Your task to perform on an android device: turn off location history Image 0: 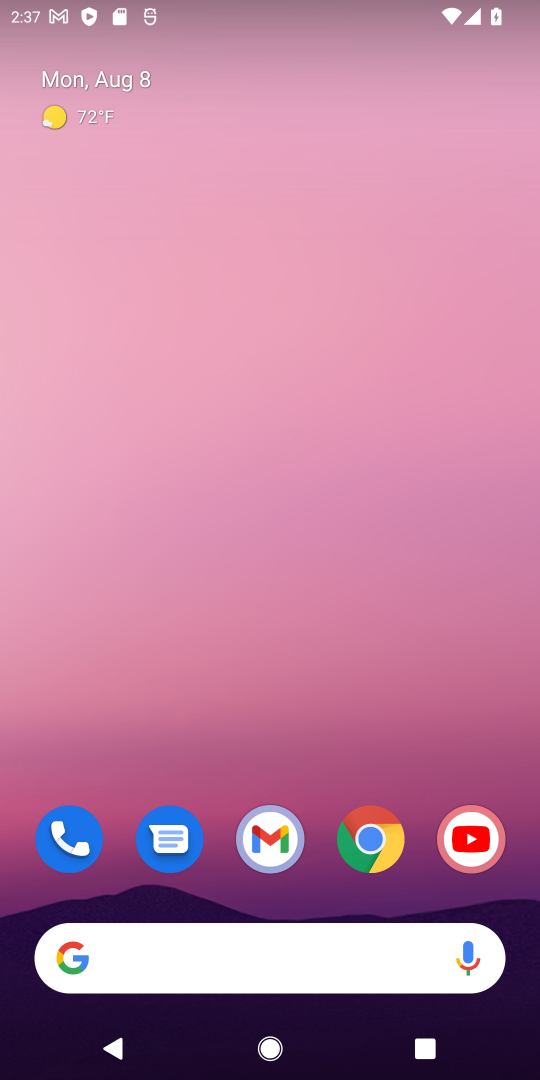
Step 0: press home button
Your task to perform on an android device: turn off location history Image 1: 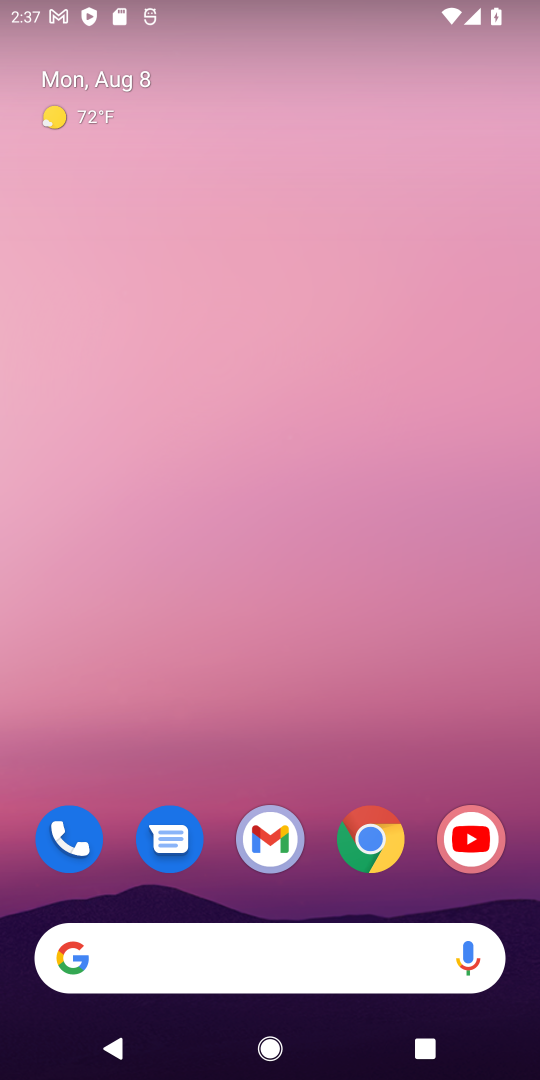
Step 1: drag from (441, 676) to (500, 202)
Your task to perform on an android device: turn off location history Image 2: 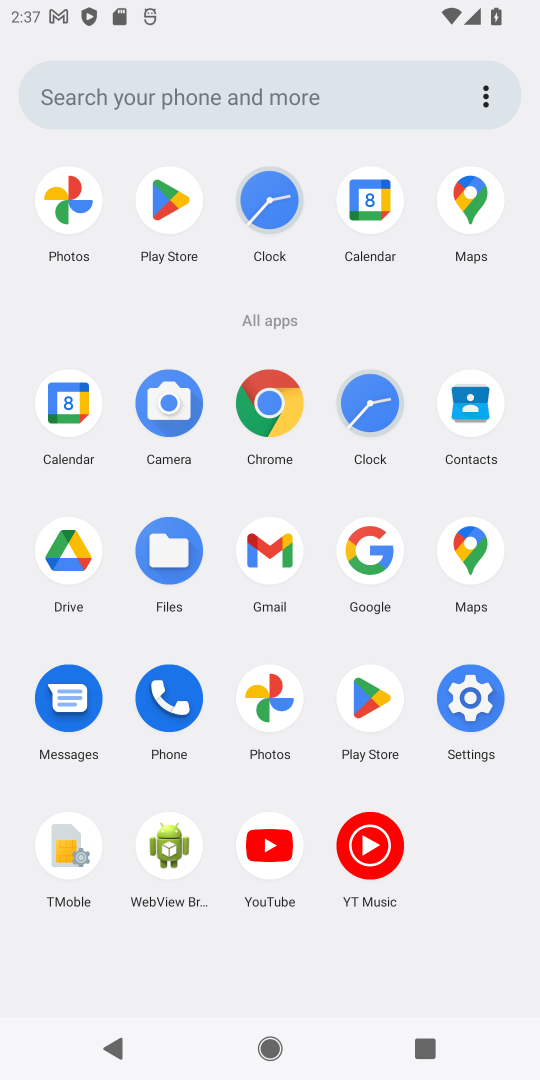
Step 2: click (466, 693)
Your task to perform on an android device: turn off location history Image 3: 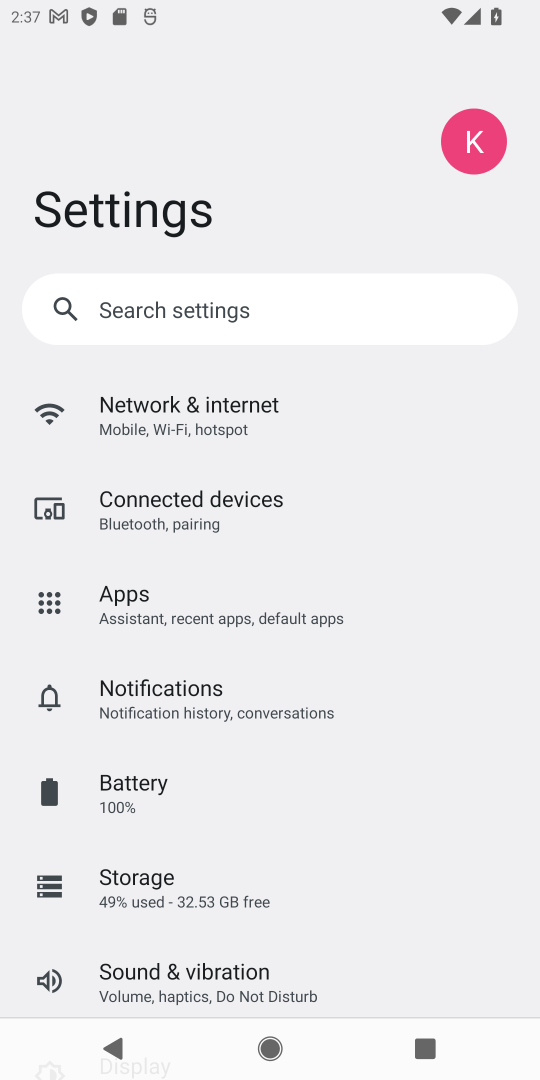
Step 3: drag from (458, 821) to (465, 696)
Your task to perform on an android device: turn off location history Image 4: 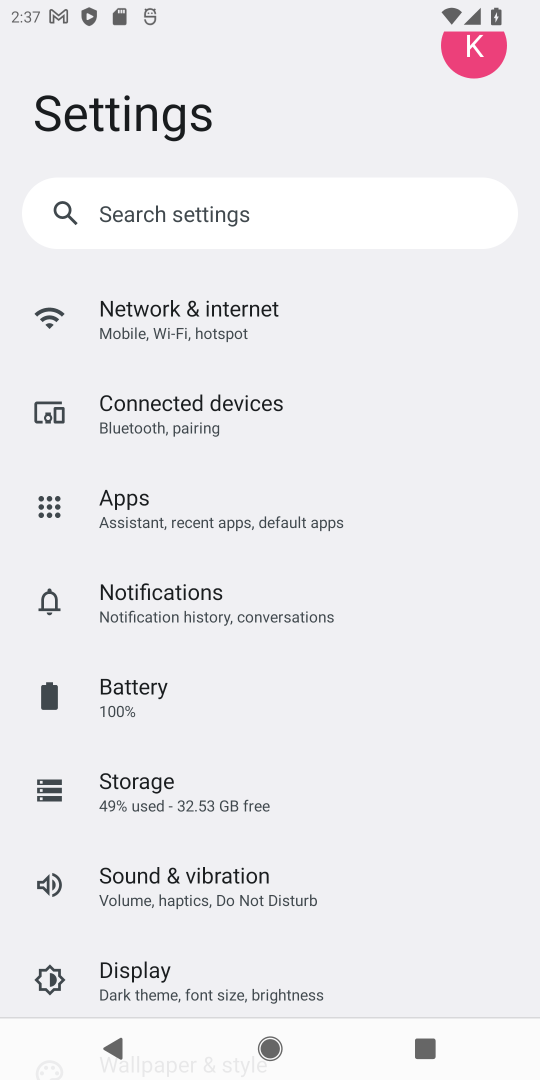
Step 4: drag from (455, 815) to (462, 535)
Your task to perform on an android device: turn off location history Image 5: 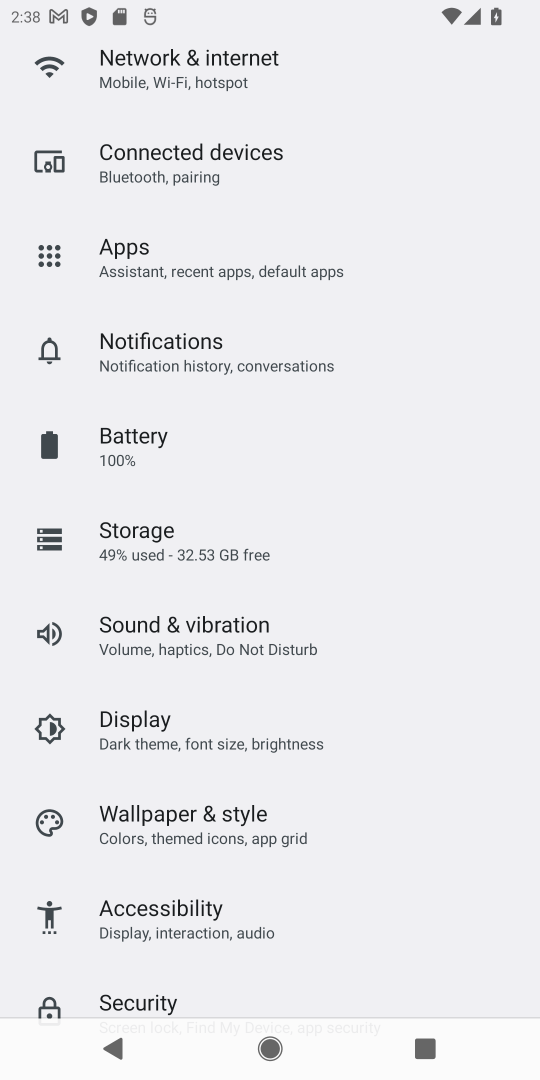
Step 5: drag from (427, 693) to (442, 511)
Your task to perform on an android device: turn off location history Image 6: 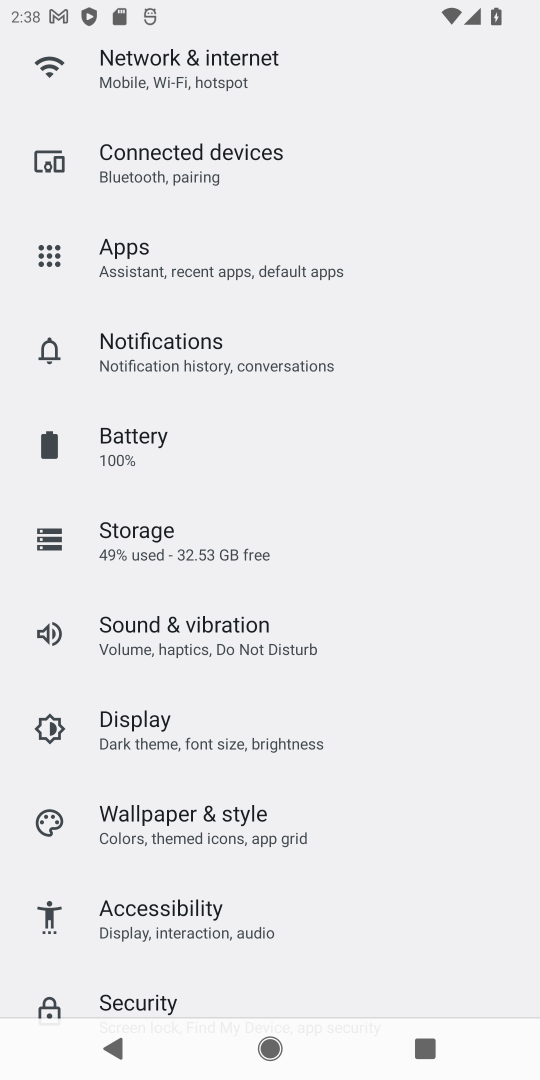
Step 6: drag from (417, 768) to (438, 426)
Your task to perform on an android device: turn off location history Image 7: 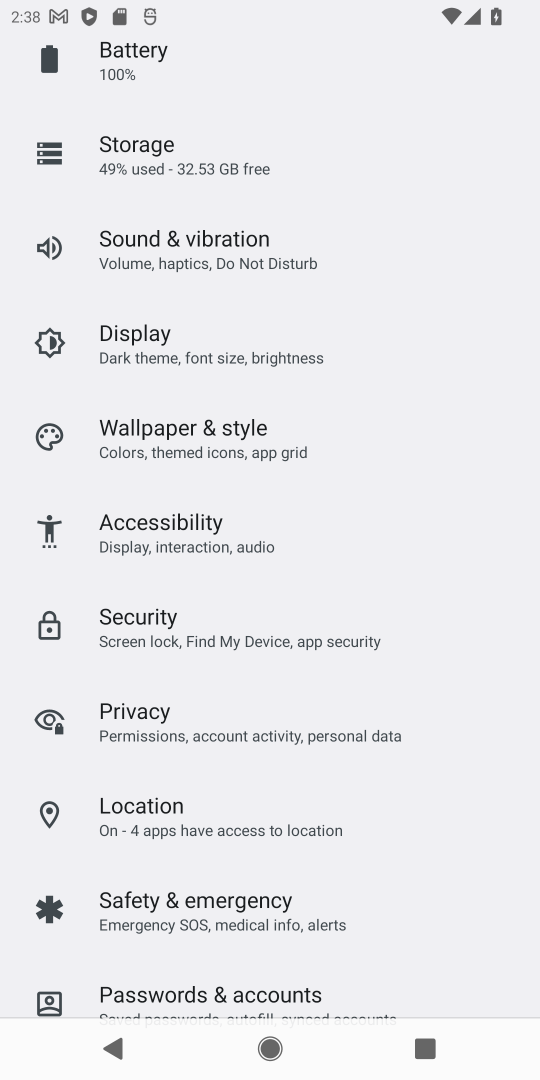
Step 7: drag from (452, 820) to (478, 517)
Your task to perform on an android device: turn off location history Image 8: 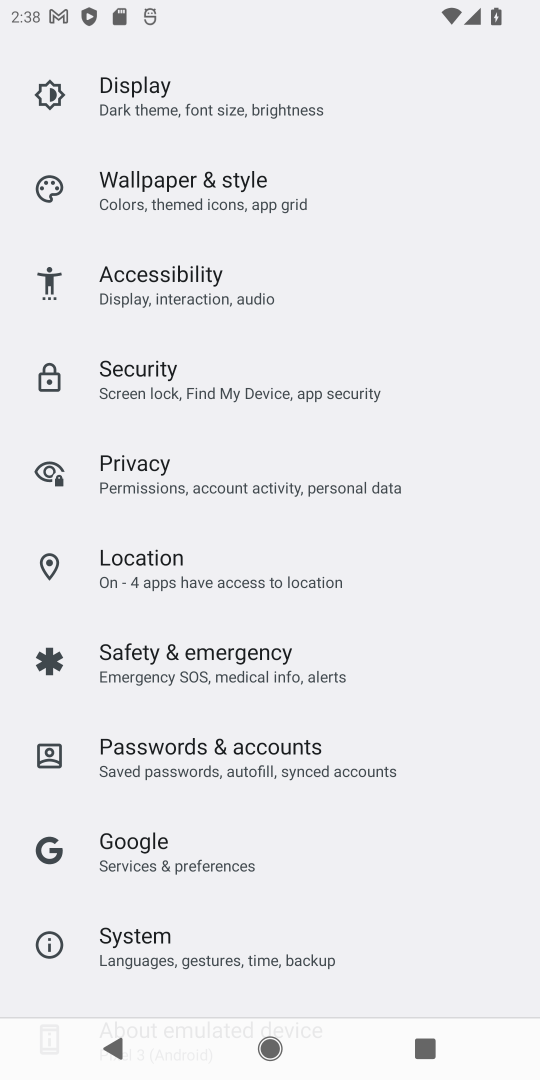
Step 8: click (354, 560)
Your task to perform on an android device: turn off location history Image 9: 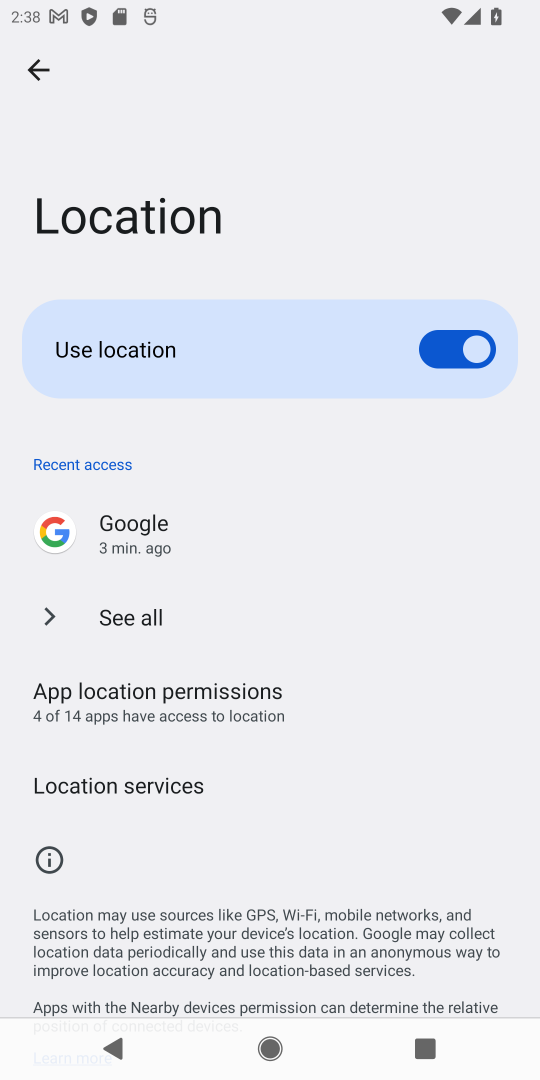
Step 9: click (470, 349)
Your task to perform on an android device: turn off location history Image 10: 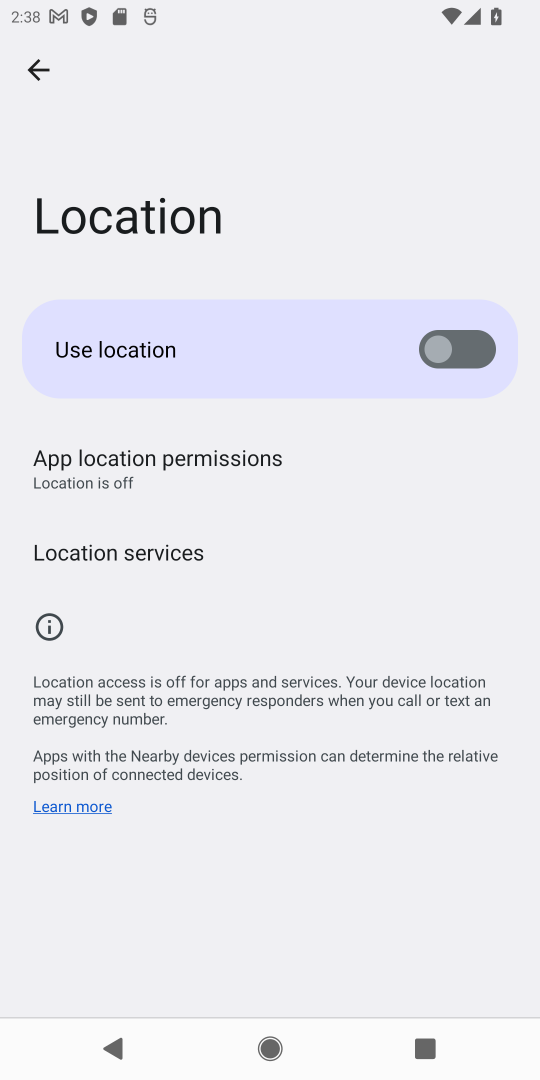
Step 10: task complete